Your task to perform on an android device: Open Youtube and go to "Your channel" Image 0: 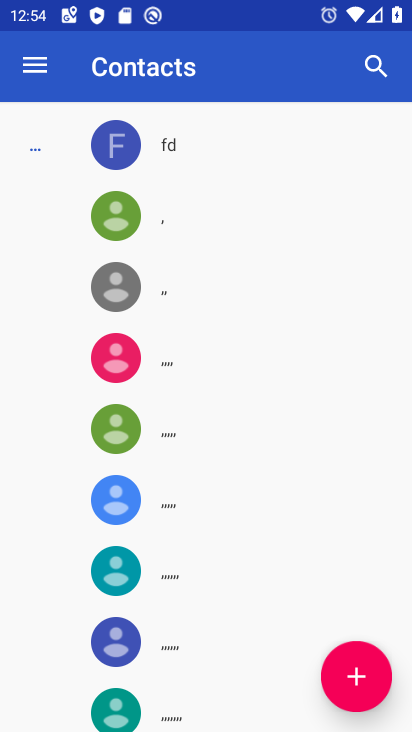
Step 0: press home button
Your task to perform on an android device: Open Youtube and go to "Your channel" Image 1: 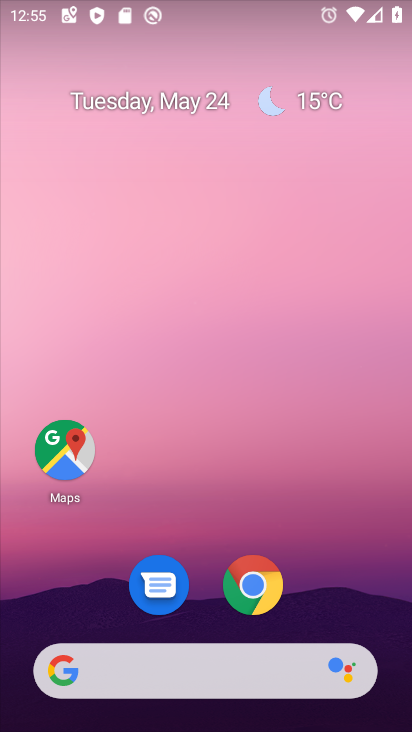
Step 1: drag from (236, 523) to (296, 1)
Your task to perform on an android device: Open Youtube and go to "Your channel" Image 2: 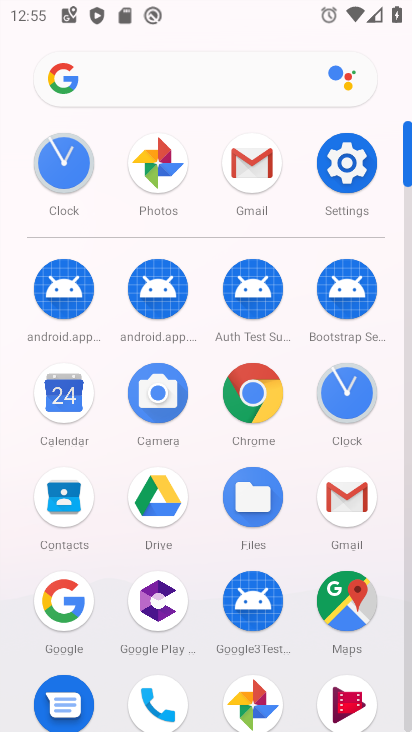
Step 2: drag from (304, 437) to (319, 124)
Your task to perform on an android device: Open Youtube and go to "Your channel" Image 3: 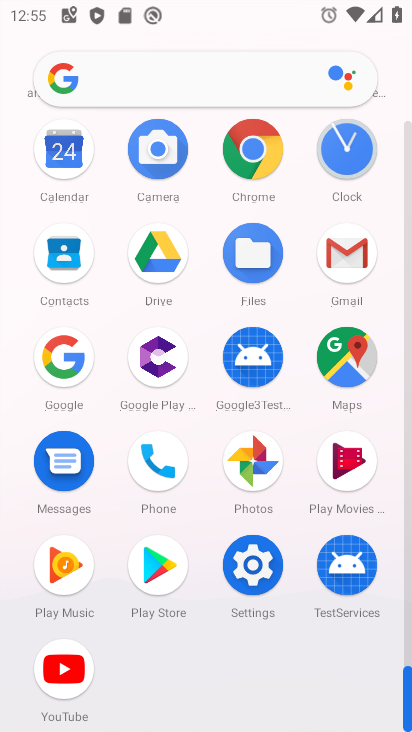
Step 3: click (73, 661)
Your task to perform on an android device: Open Youtube and go to "Your channel" Image 4: 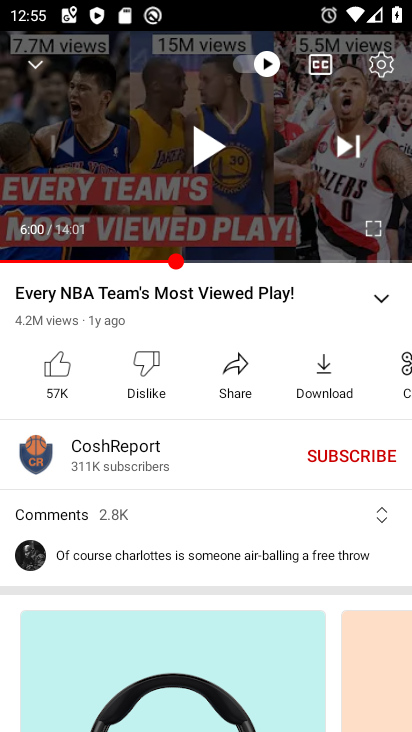
Step 4: press back button
Your task to perform on an android device: Open Youtube and go to "Your channel" Image 5: 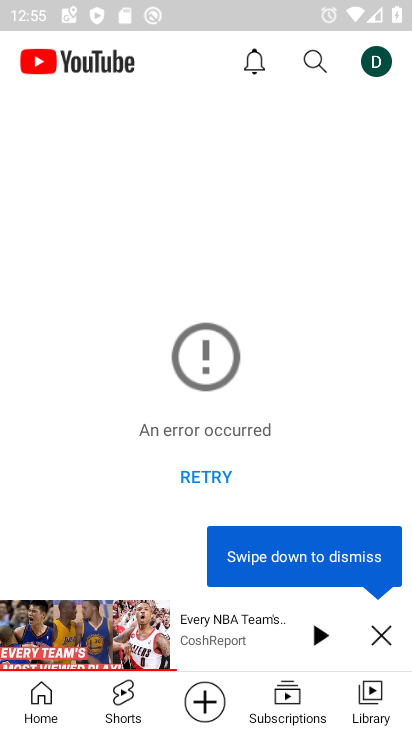
Step 5: click (368, 63)
Your task to perform on an android device: Open Youtube and go to "Your channel" Image 6: 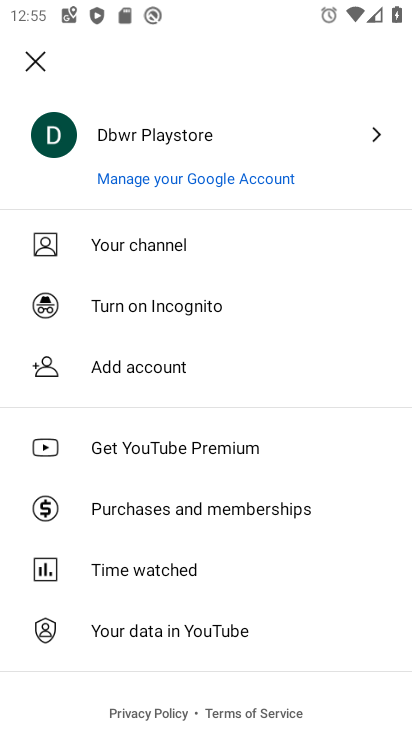
Step 6: click (172, 250)
Your task to perform on an android device: Open Youtube and go to "Your channel" Image 7: 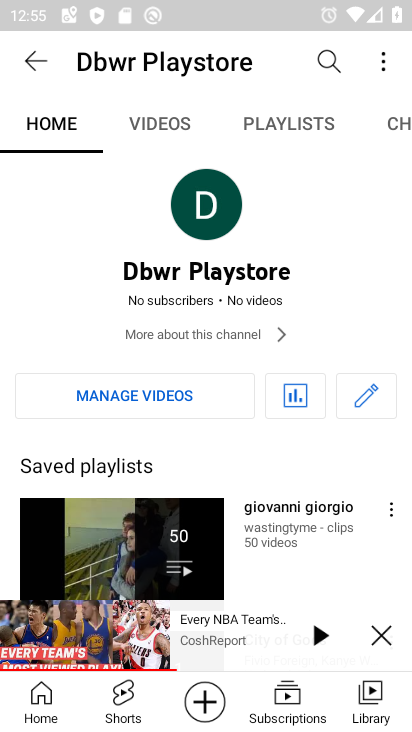
Step 7: task complete